Your task to perform on an android device: turn on wifi Image 0: 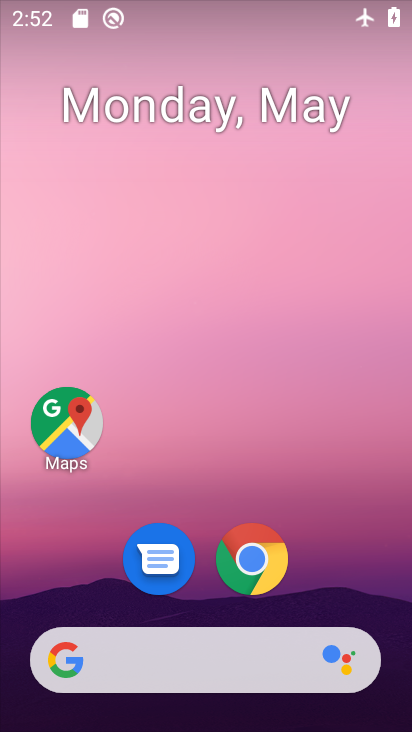
Step 0: drag from (311, 586) to (261, 160)
Your task to perform on an android device: turn on wifi Image 1: 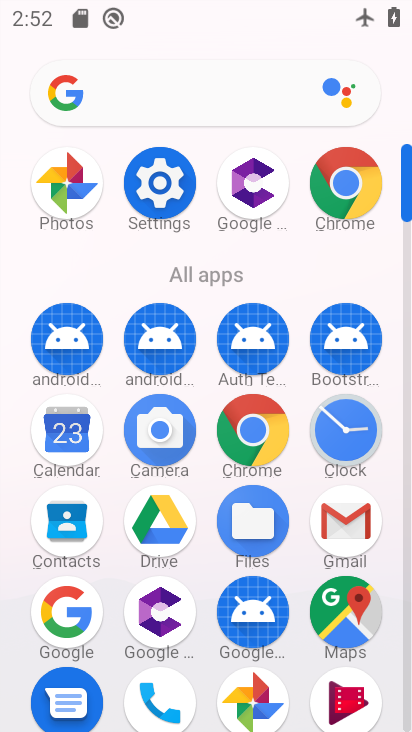
Step 1: click (148, 189)
Your task to perform on an android device: turn on wifi Image 2: 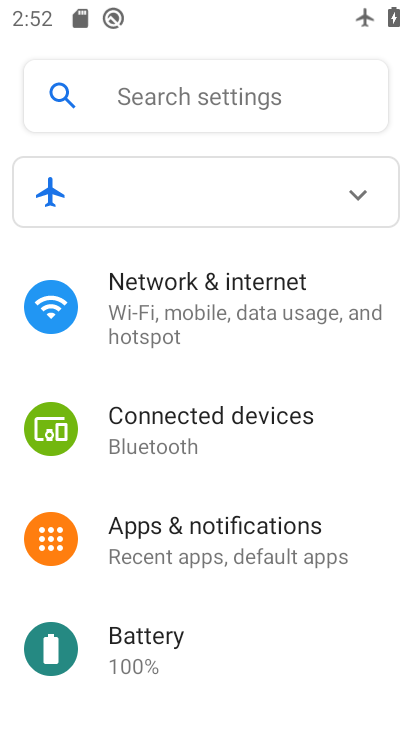
Step 2: click (151, 320)
Your task to perform on an android device: turn on wifi Image 3: 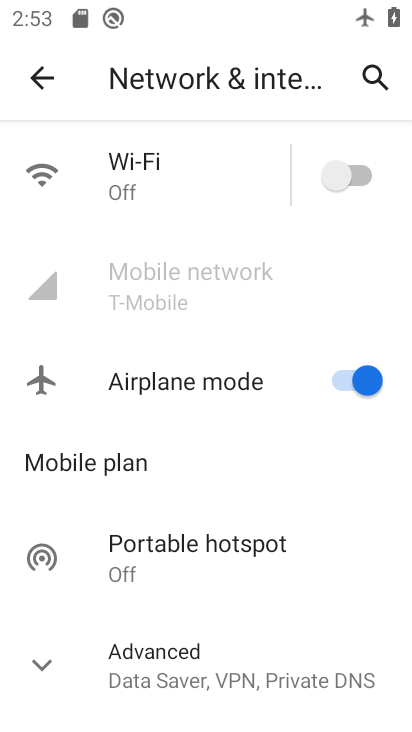
Step 3: click (368, 176)
Your task to perform on an android device: turn on wifi Image 4: 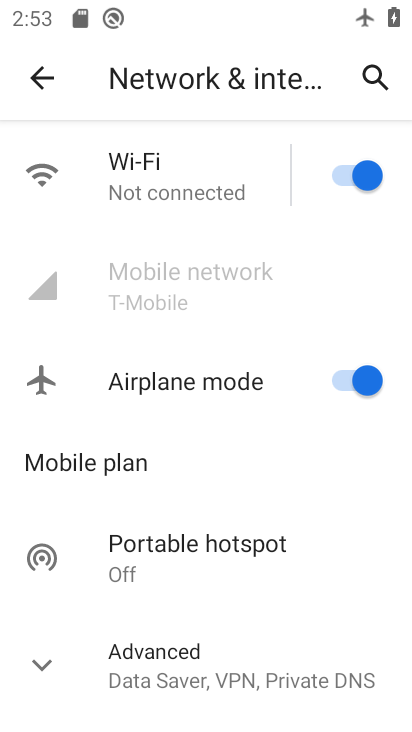
Step 4: task complete